Your task to perform on an android device: turn vacation reply on in the gmail app Image 0: 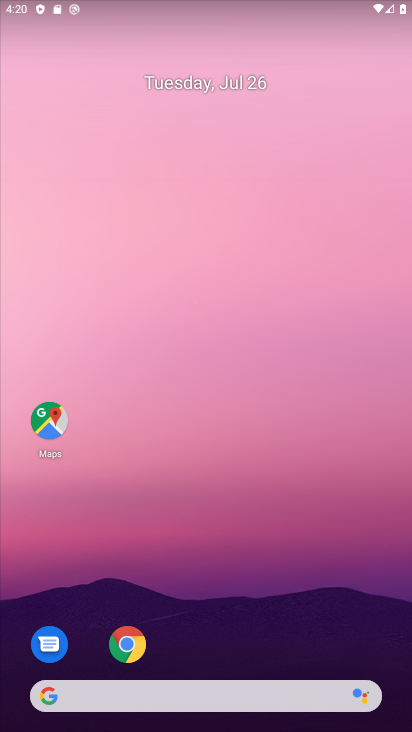
Step 0: drag from (346, 564) to (388, 106)
Your task to perform on an android device: turn vacation reply on in the gmail app Image 1: 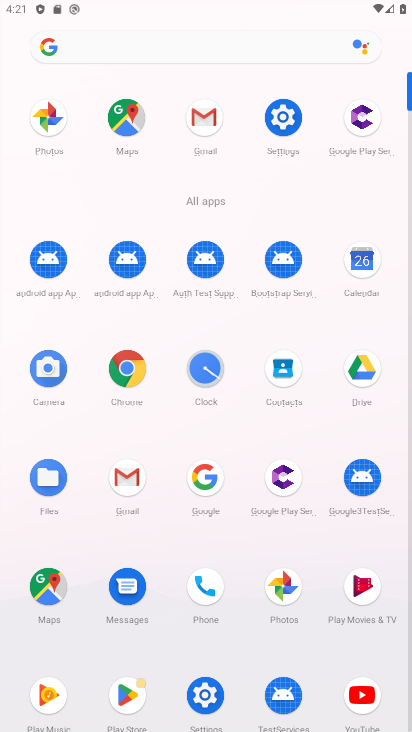
Step 1: click (122, 480)
Your task to perform on an android device: turn vacation reply on in the gmail app Image 2: 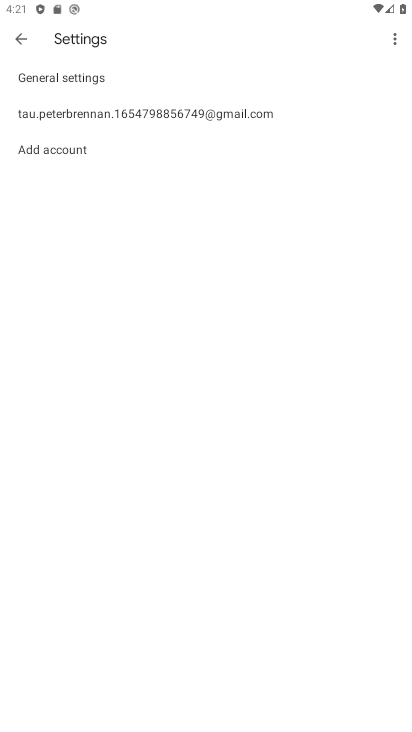
Step 2: click (105, 117)
Your task to perform on an android device: turn vacation reply on in the gmail app Image 3: 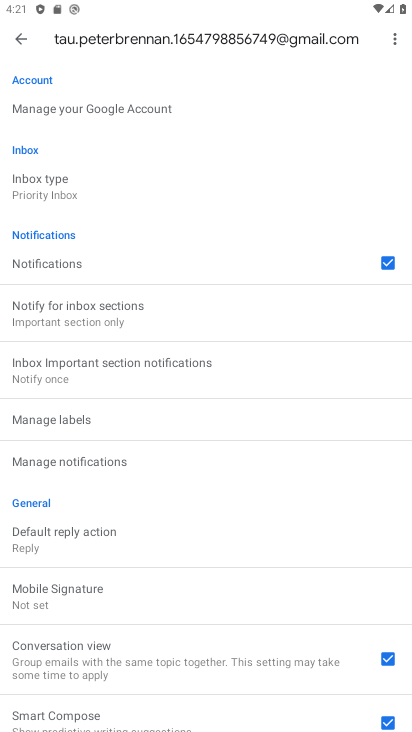
Step 3: drag from (127, 647) to (114, 288)
Your task to perform on an android device: turn vacation reply on in the gmail app Image 4: 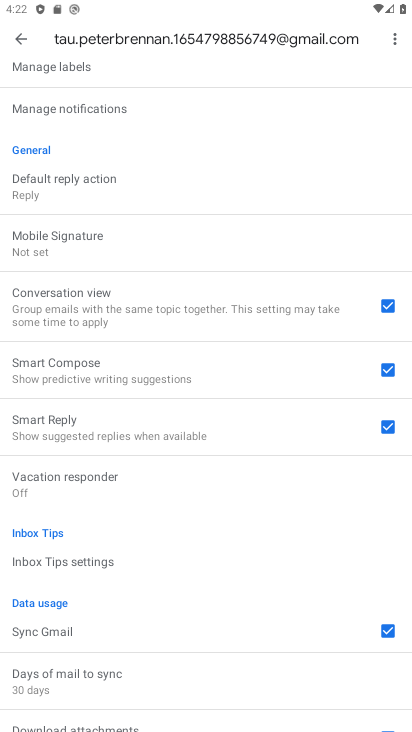
Step 4: click (63, 481)
Your task to perform on an android device: turn vacation reply on in the gmail app Image 5: 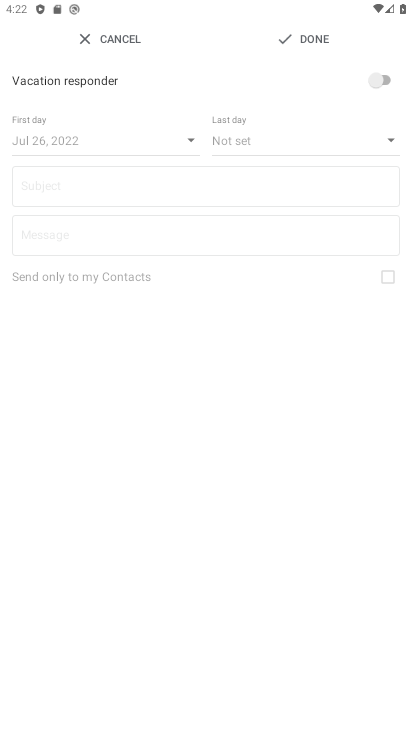
Step 5: click (383, 84)
Your task to perform on an android device: turn vacation reply on in the gmail app Image 6: 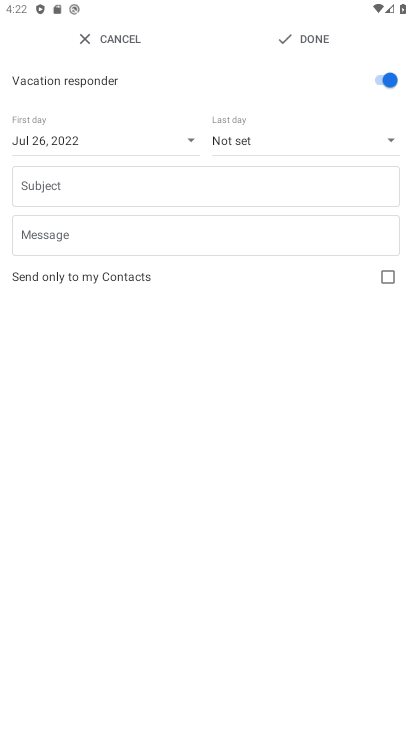
Step 6: click (323, 43)
Your task to perform on an android device: turn vacation reply on in the gmail app Image 7: 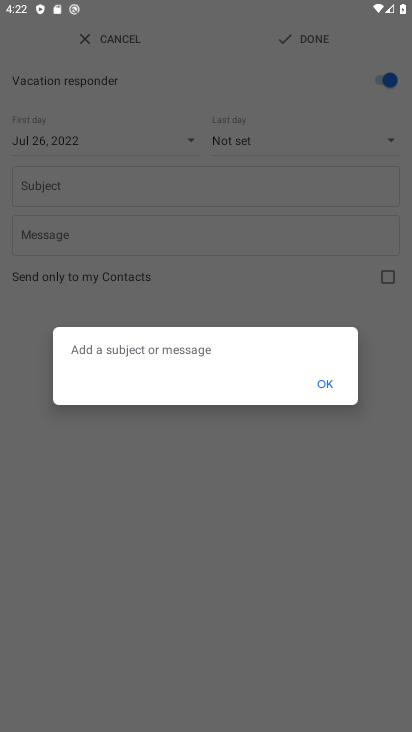
Step 7: task complete